Your task to perform on an android device: Open calendar and show me the fourth week of next month Image 0: 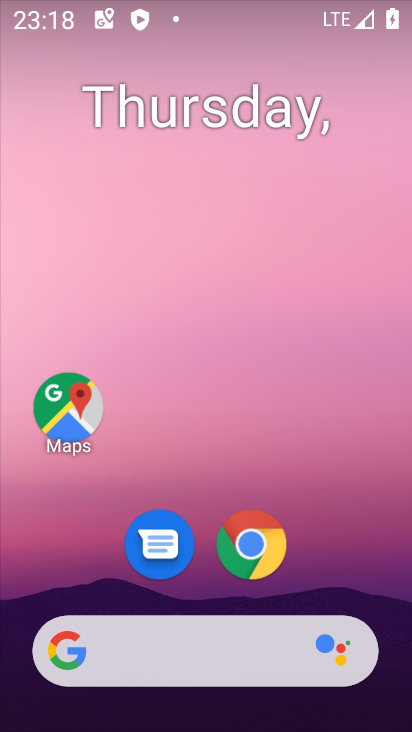
Step 0: drag from (347, 553) to (222, 256)
Your task to perform on an android device: Open calendar and show me the fourth week of next month Image 1: 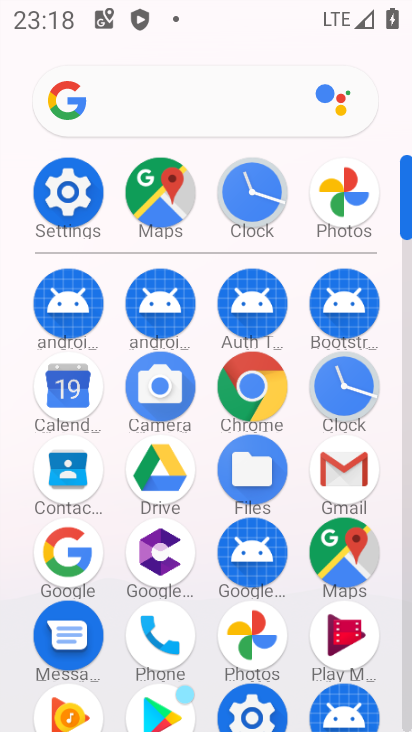
Step 1: click (49, 402)
Your task to perform on an android device: Open calendar and show me the fourth week of next month Image 2: 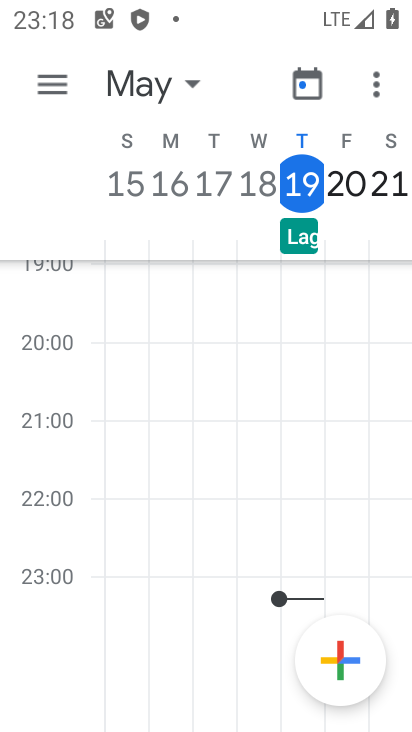
Step 2: click (148, 94)
Your task to perform on an android device: Open calendar and show me the fourth week of next month Image 3: 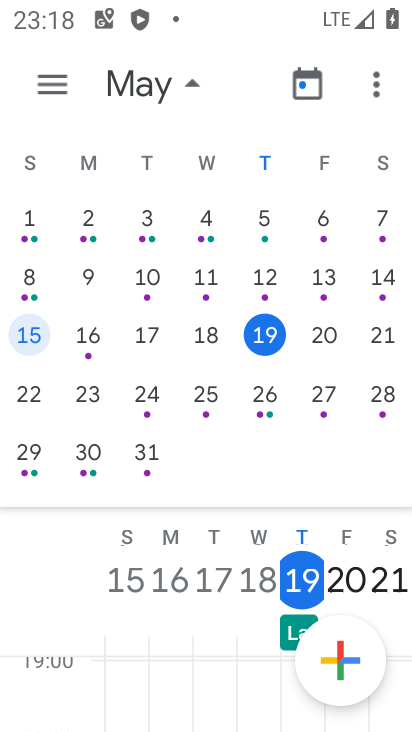
Step 3: drag from (335, 282) to (26, 282)
Your task to perform on an android device: Open calendar and show me the fourth week of next month Image 4: 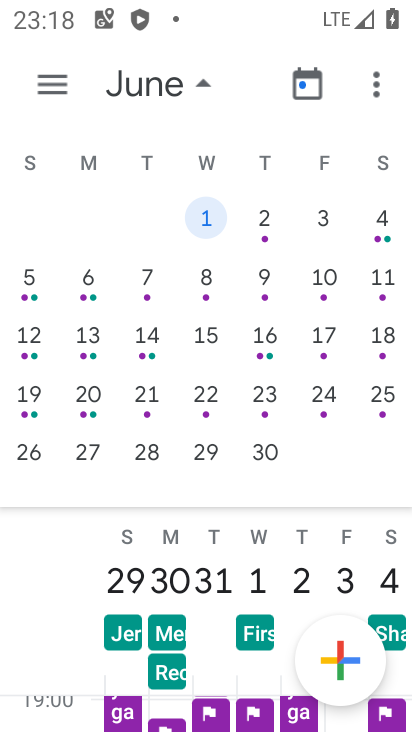
Step 4: click (34, 400)
Your task to perform on an android device: Open calendar and show me the fourth week of next month Image 5: 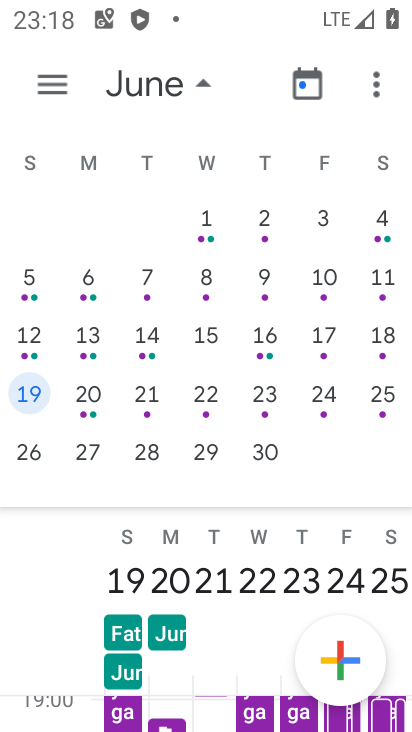
Step 5: click (154, 88)
Your task to perform on an android device: Open calendar and show me the fourth week of next month Image 6: 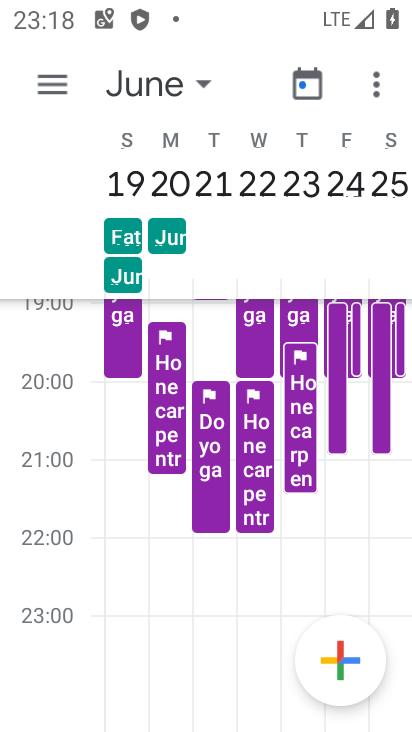
Step 6: task complete